Your task to perform on an android device: Add "usb-c" to the cart on target.com, then select checkout. Image 0: 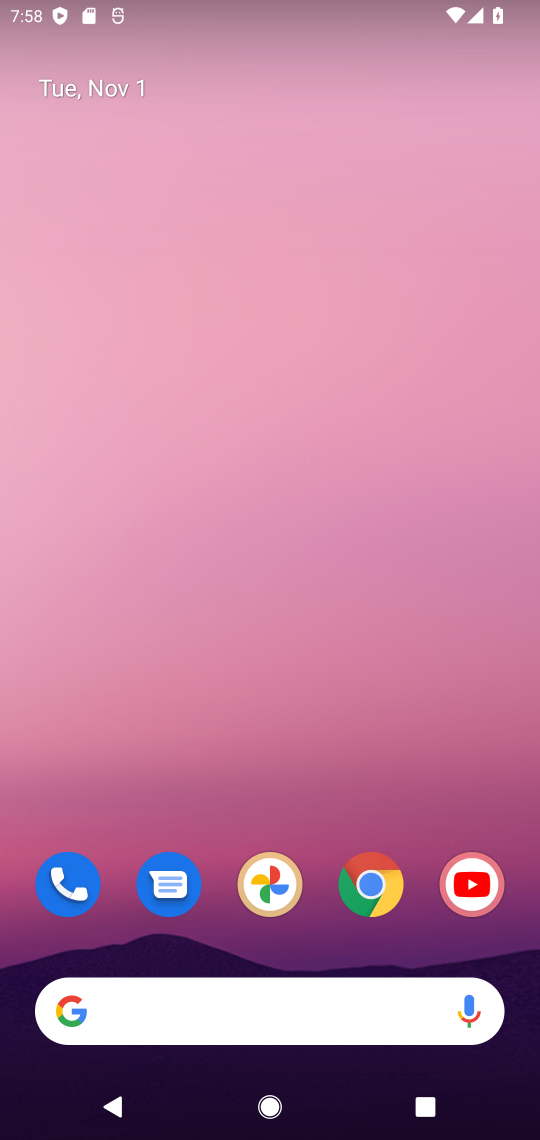
Step 0: click (371, 880)
Your task to perform on an android device: Add "usb-c" to the cart on target.com, then select checkout. Image 1: 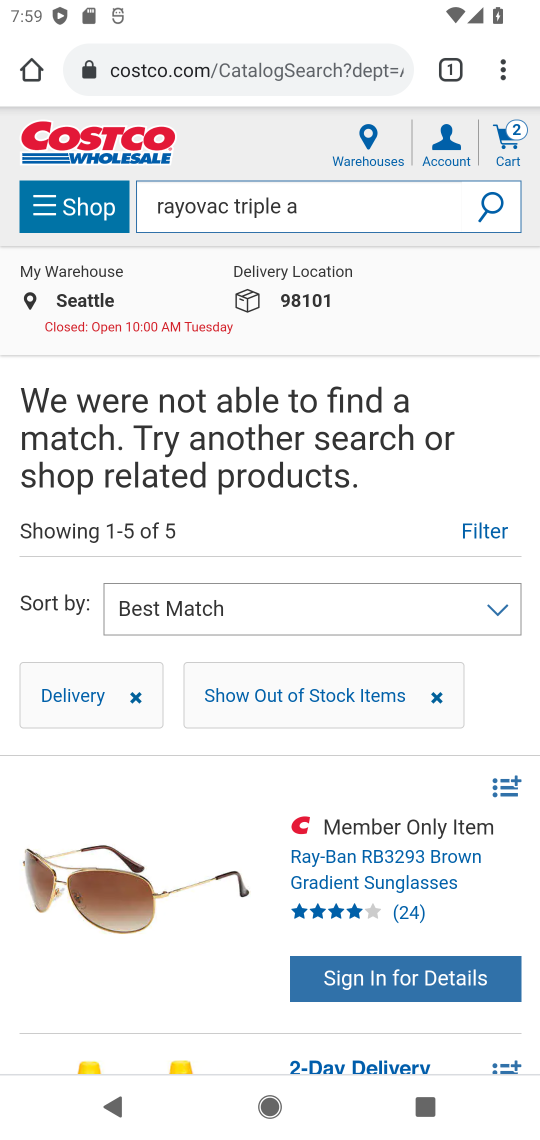
Step 1: click (252, 69)
Your task to perform on an android device: Add "usb-c" to the cart on target.com, then select checkout. Image 2: 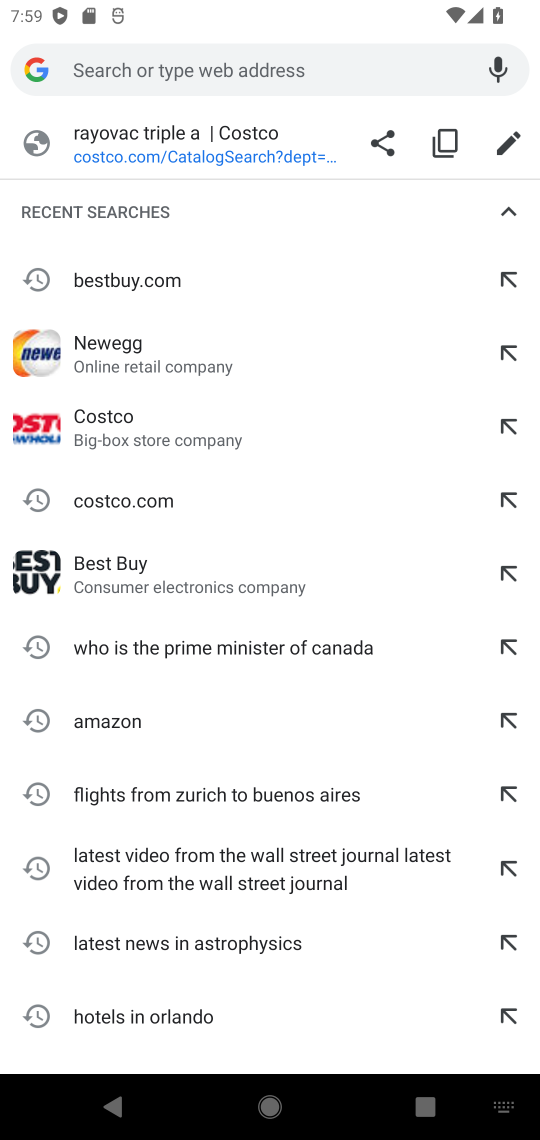
Step 2: type "target.com"
Your task to perform on an android device: Add "usb-c" to the cart on target.com, then select checkout. Image 3: 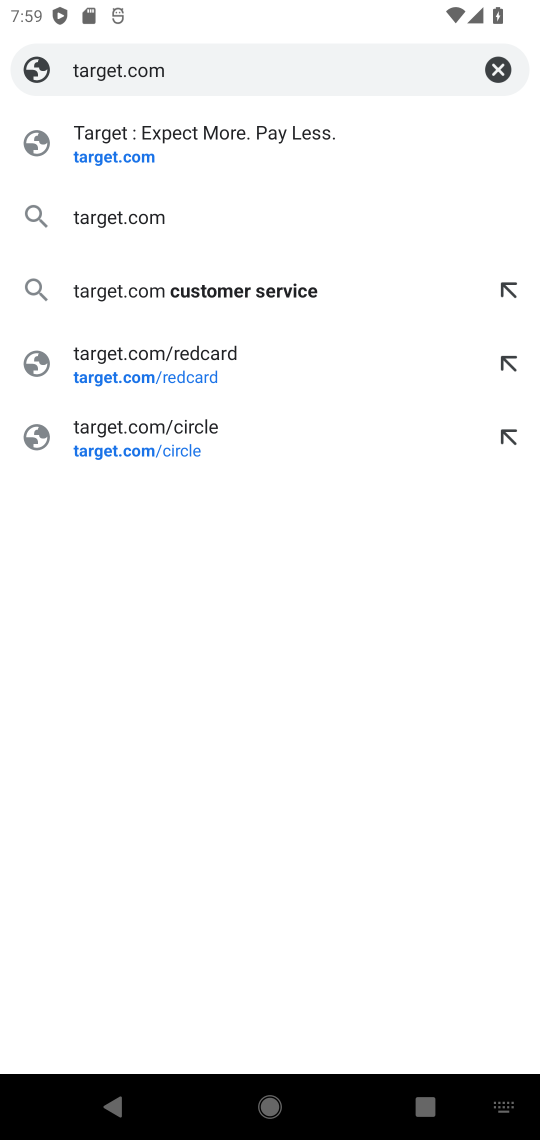
Step 3: click (129, 219)
Your task to perform on an android device: Add "usb-c" to the cart on target.com, then select checkout. Image 4: 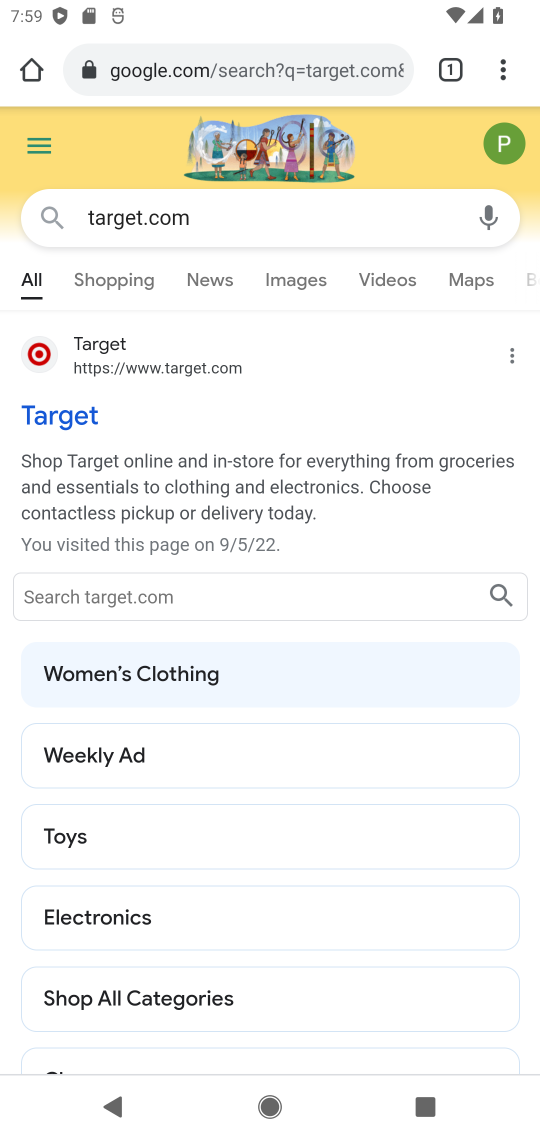
Step 4: click (120, 377)
Your task to perform on an android device: Add "usb-c" to the cart on target.com, then select checkout. Image 5: 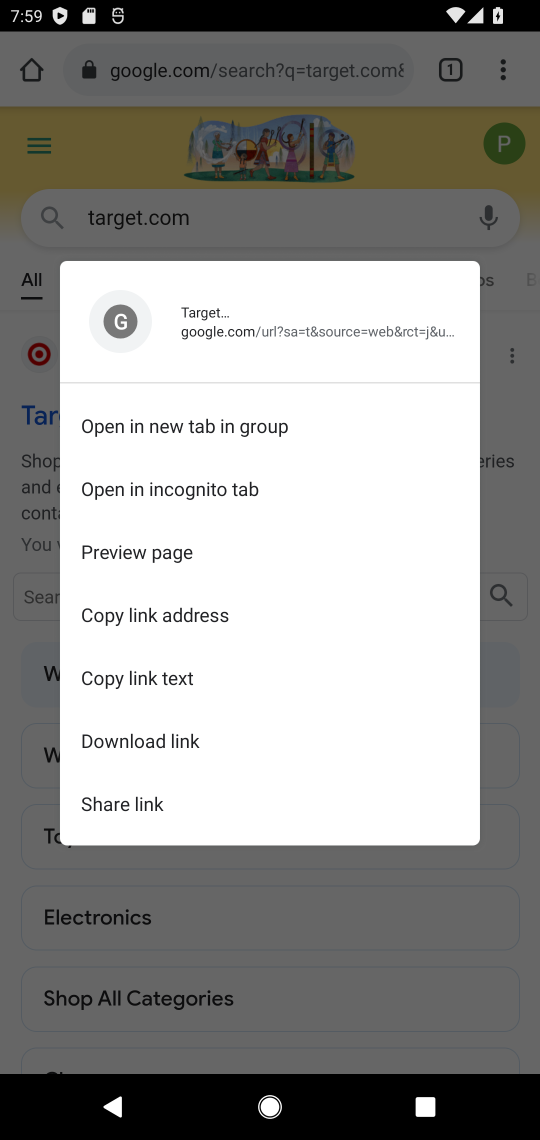
Step 5: click (406, 134)
Your task to perform on an android device: Add "usb-c" to the cart on target.com, then select checkout. Image 6: 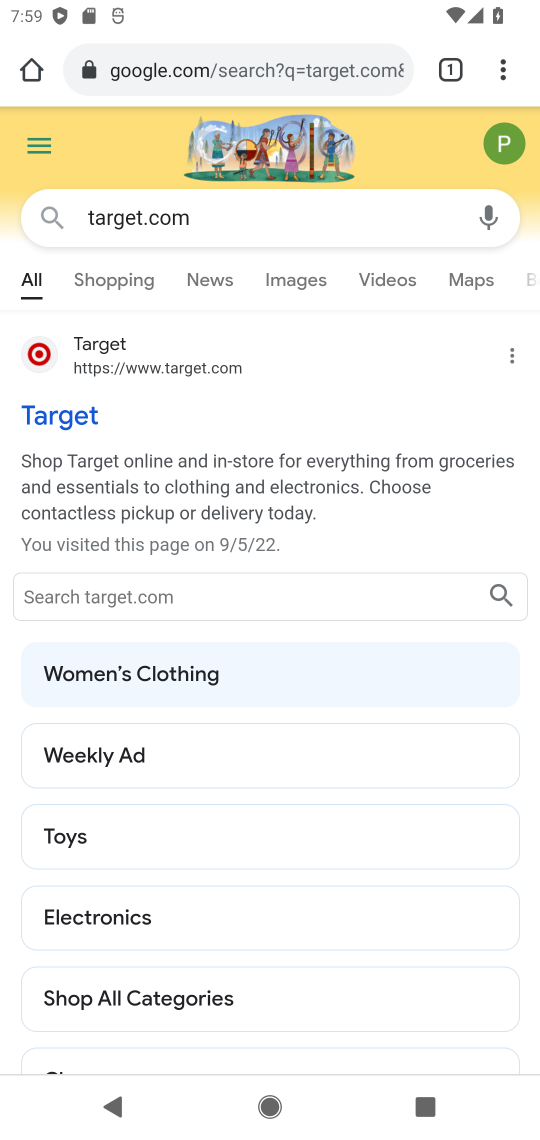
Step 6: click (48, 410)
Your task to perform on an android device: Add "usb-c" to the cart on target.com, then select checkout. Image 7: 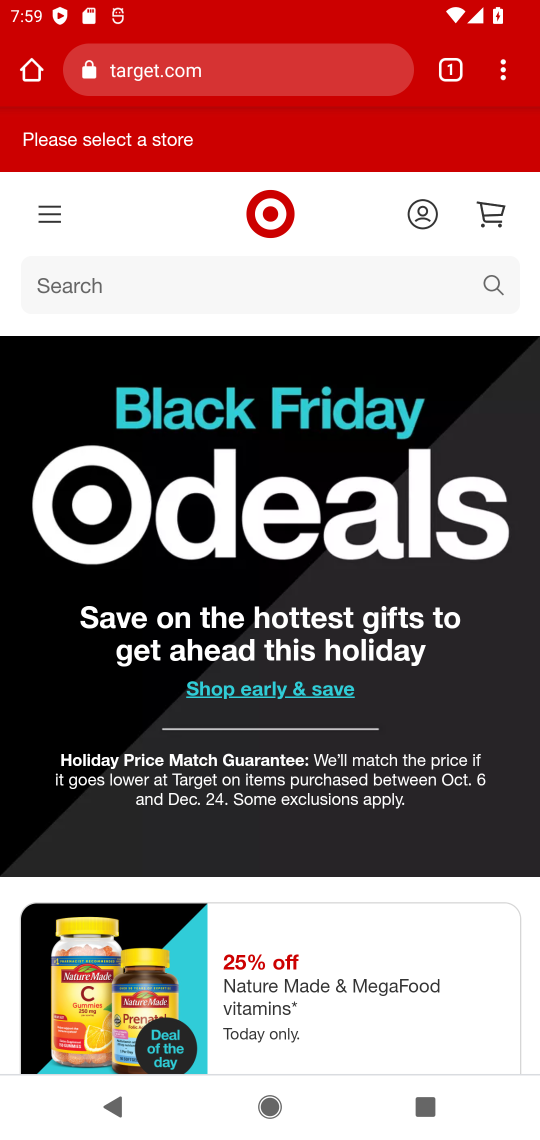
Step 7: click (428, 295)
Your task to perform on an android device: Add "usb-c" to the cart on target.com, then select checkout. Image 8: 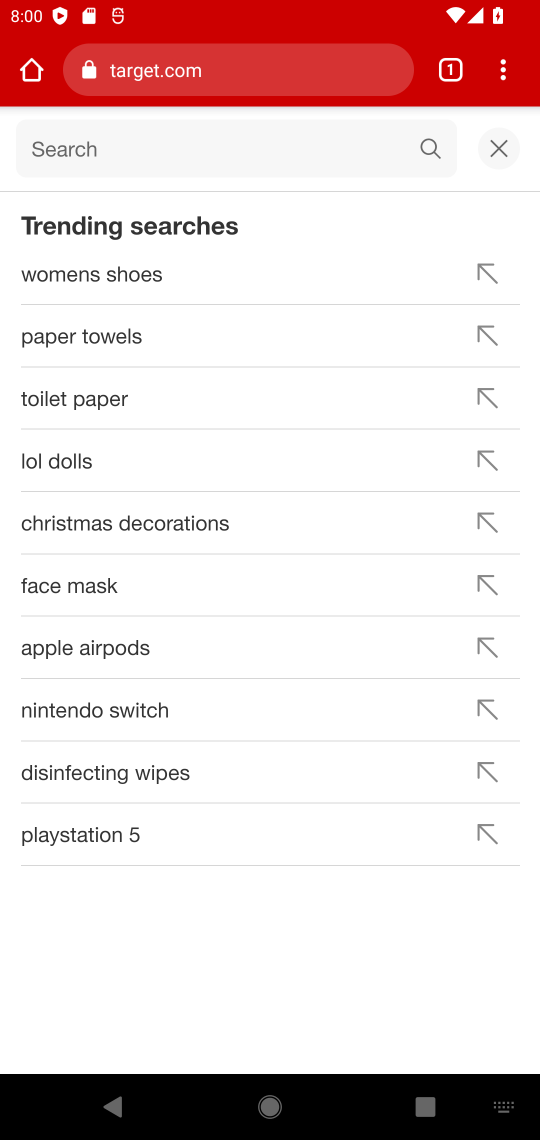
Step 8: type "usb-c"
Your task to perform on an android device: Add "usb-c" to the cart on target.com, then select checkout. Image 9: 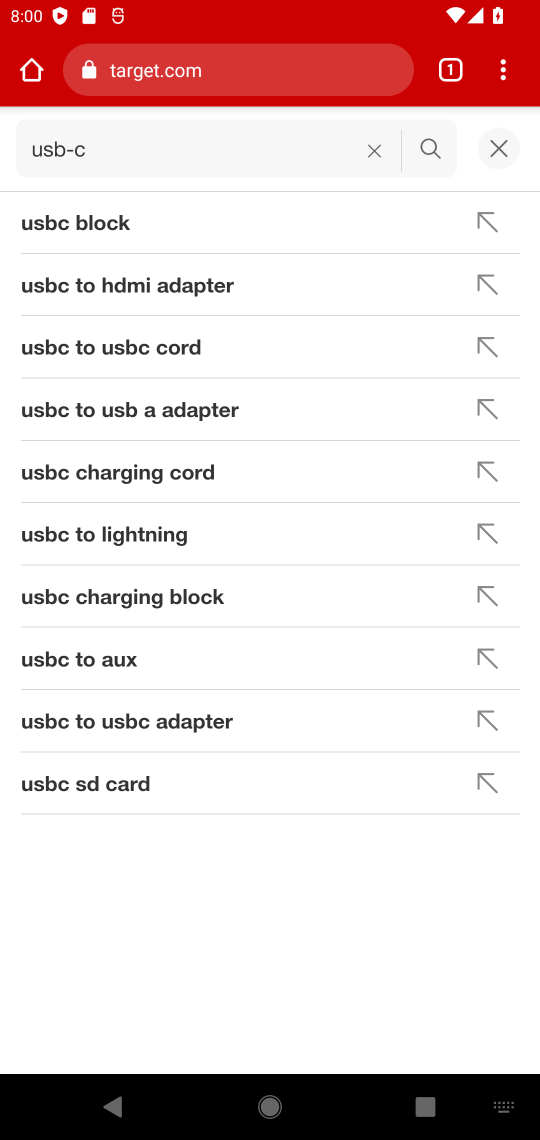
Step 9: click (428, 145)
Your task to perform on an android device: Add "usb-c" to the cart on target.com, then select checkout. Image 10: 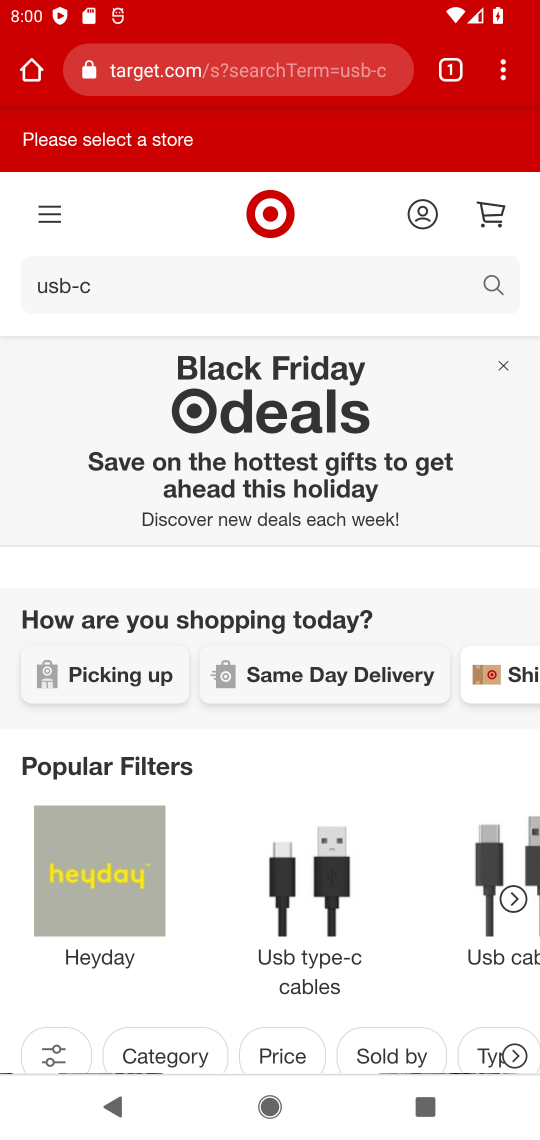
Step 10: drag from (331, 764) to (372, 325)
Your task to perform on an android device: Add "usb-c" to the cart on target.com, then select checkout. Image 11: 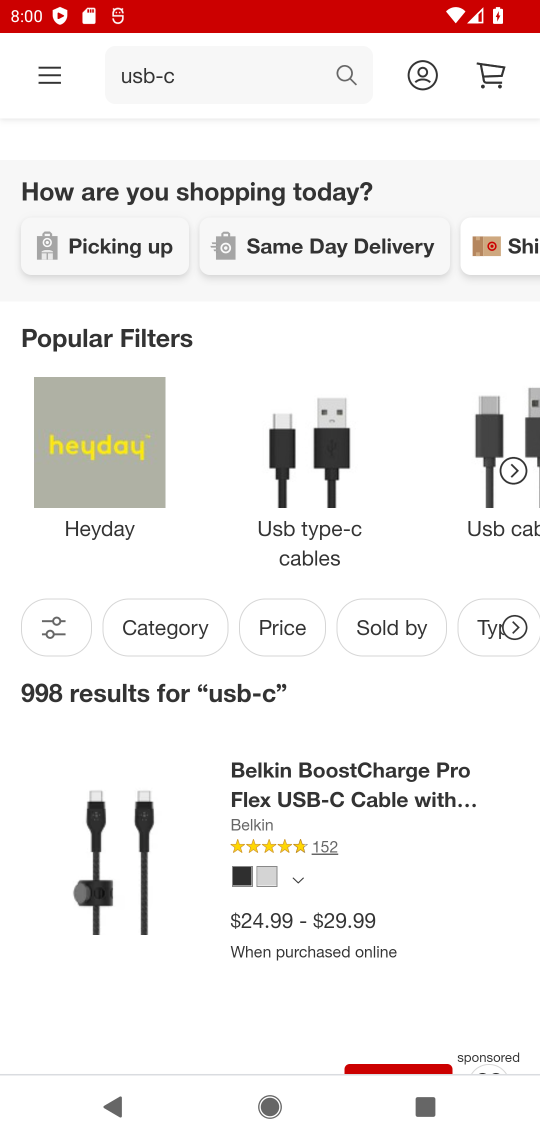
Step 11: click (383, 798)
Your task to perform on an android device: Add "usb-c" to the cart on target.com, then select checkout. Image 12: 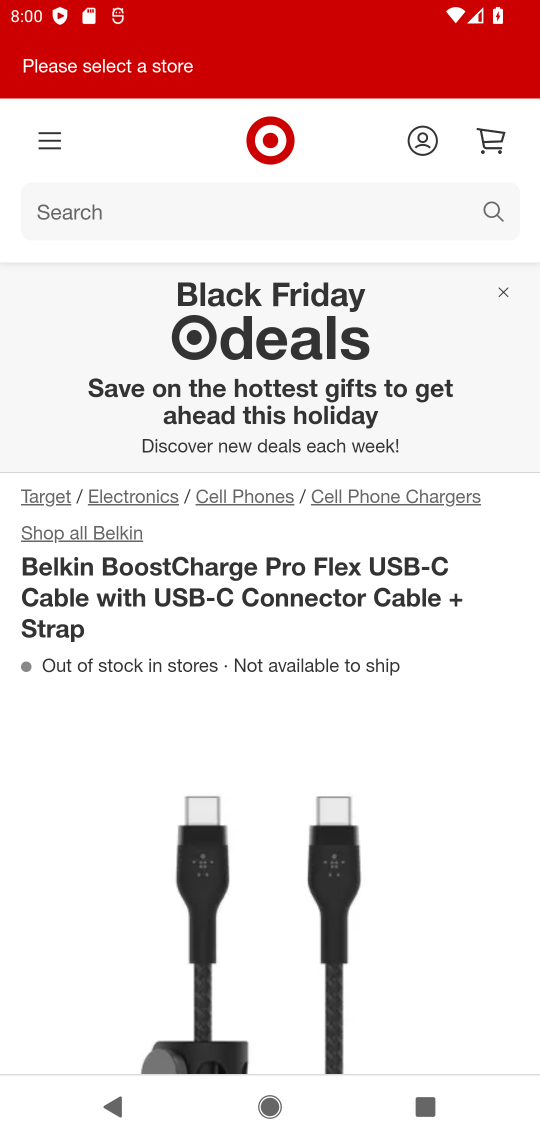
Step 12: drag from (400, 779) to (377, 385)
Your task to perform on an android device: Add "usb-c" to the cart on target.com, then select checkout. Image 13: 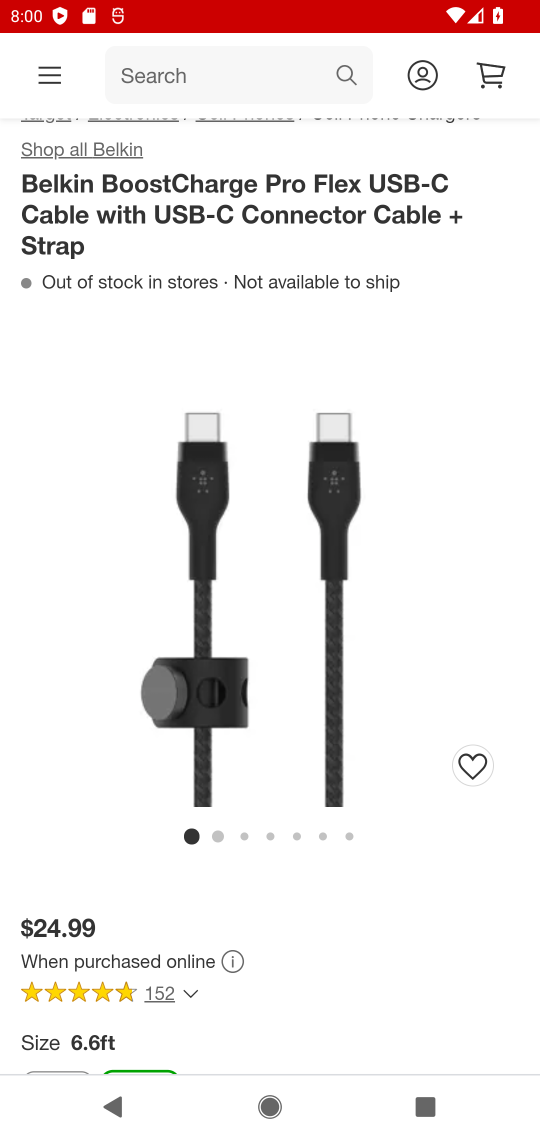
Step 13: drag from (340, 883) to (364, 501)
Your task to perform on an android device: Add "usb-c" to the cart on target.com, then select checkout. Image 14: 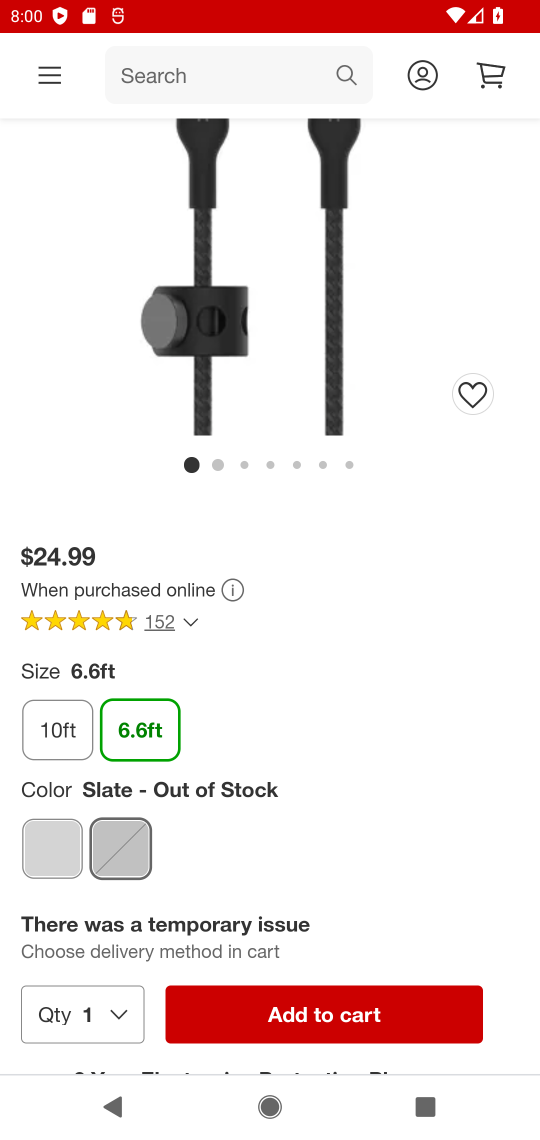
Step 14: click (312, 1013)
Your task to perform on an android device: Add "usb-c" to the cart on target.com, then select checkout. Image 15: 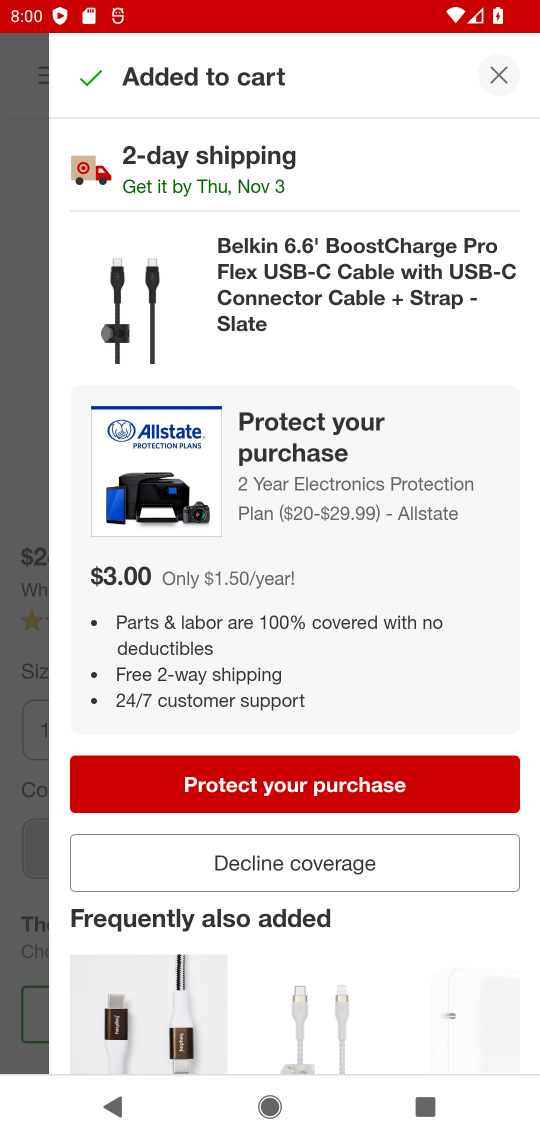
Step 15: click (315, 869)
Your task to perform on an android device: Add "usb-c" to the cart on target.com, then select checkout. Image 16: 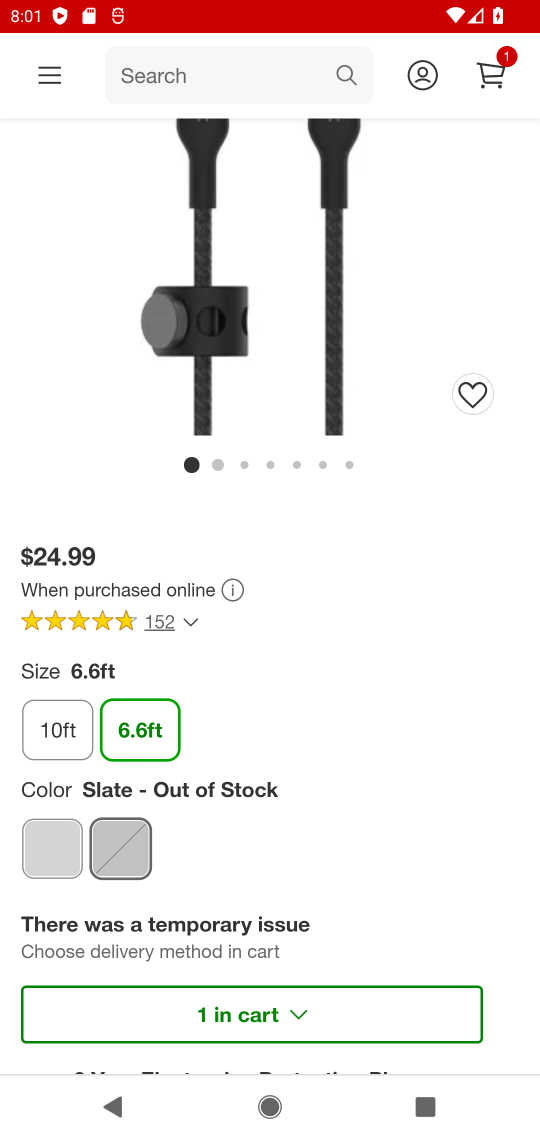
Step 16: click (490, 72)
Your task to perform on an android device: Add "usb-c" to the cart on target.com, then select checkout. Image 17: 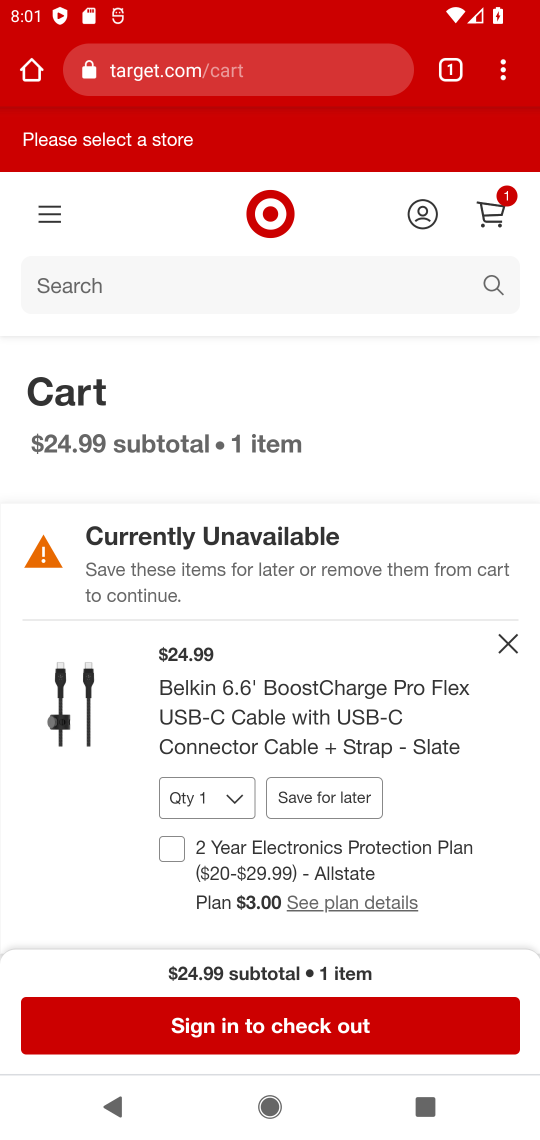
Step 17: click (316, 1031)
Your task to perform on an android device: Add "usb-c" to the cart on target.com, then select checkout. Image 18: 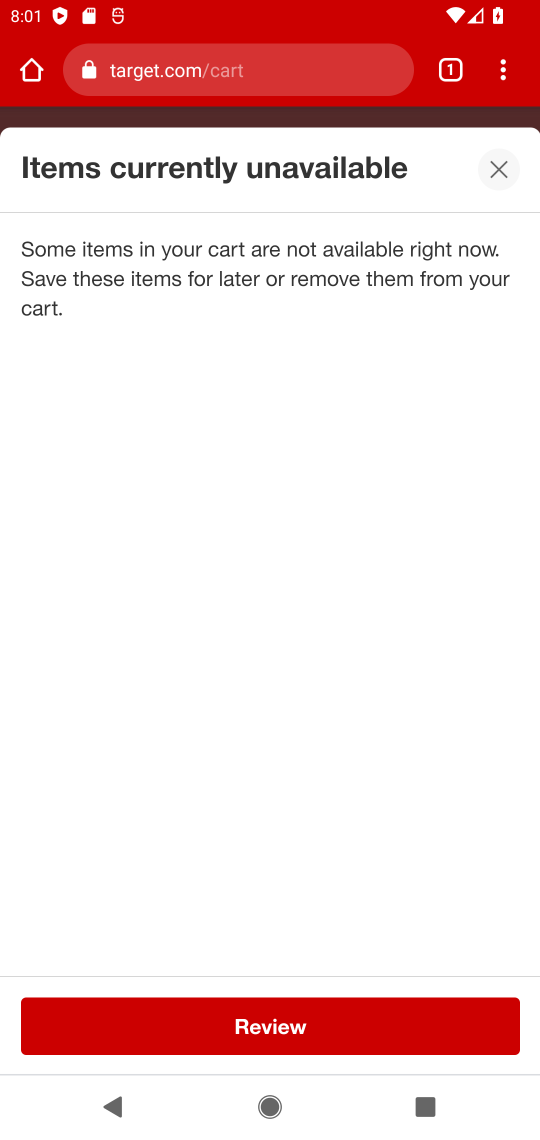
Step 18: task complete